Your task to perform on an android device: Search for Mexican restaurants on Maps Image 0: 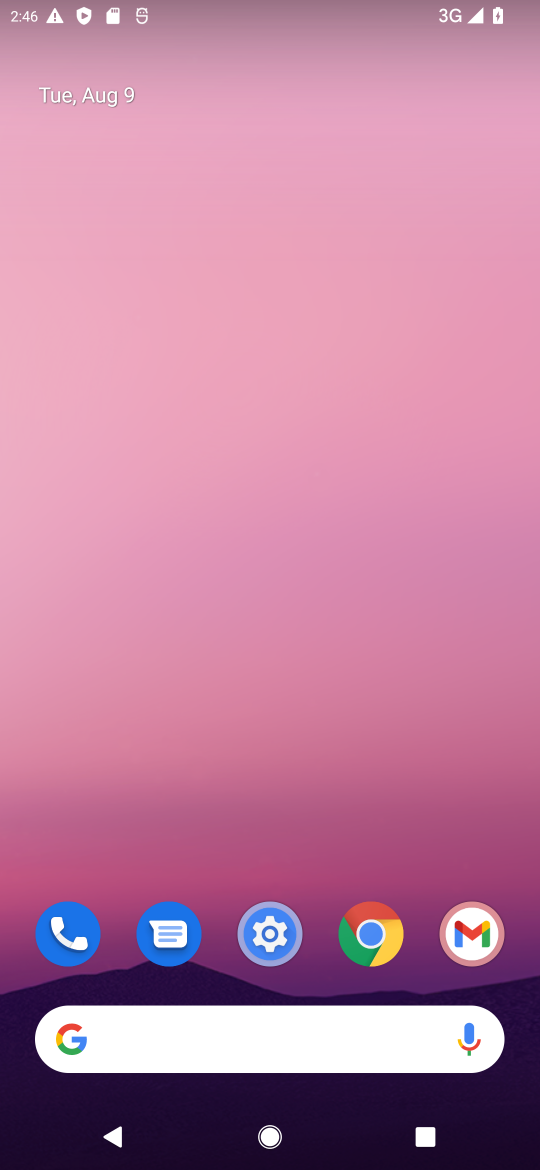
Step 0: drag from (318, 977) to (365, 160)
Your task to perform on an android device: Search for Mexican restaurants on Maps Image 1: 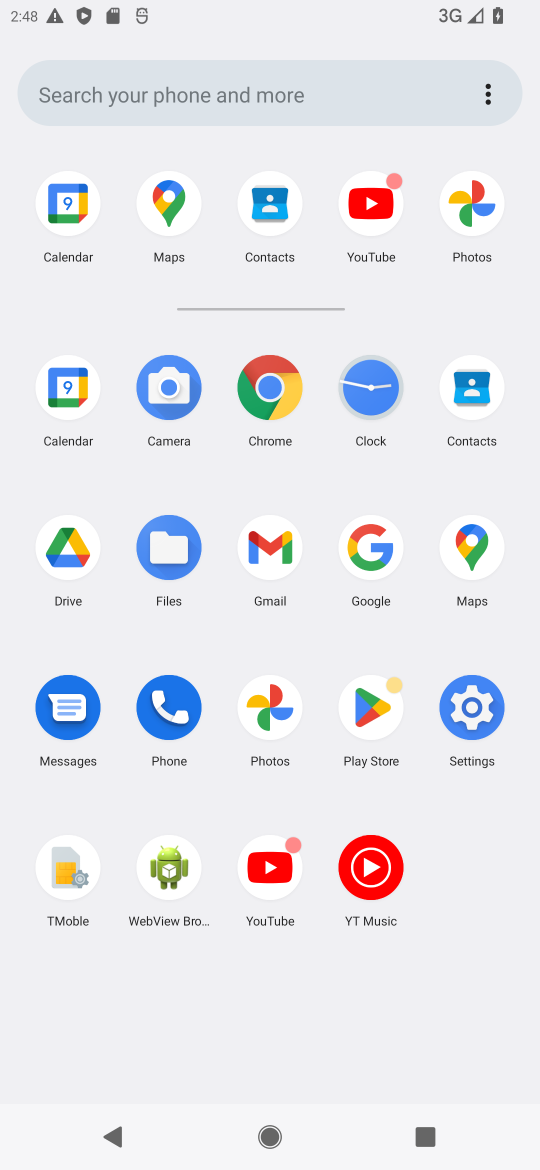
Step 1: task complete